Your task to perform on an android device: Open Android settings Image 0: 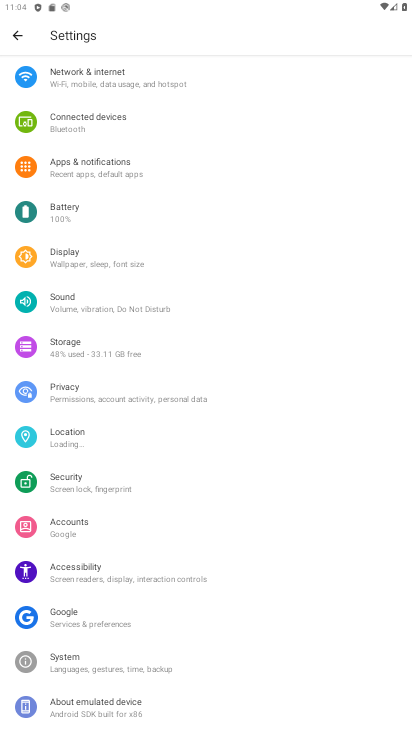
Step 0: task complete